Your task to perform on an android device: Search for seafood restaurants on Google Maps Image 0: 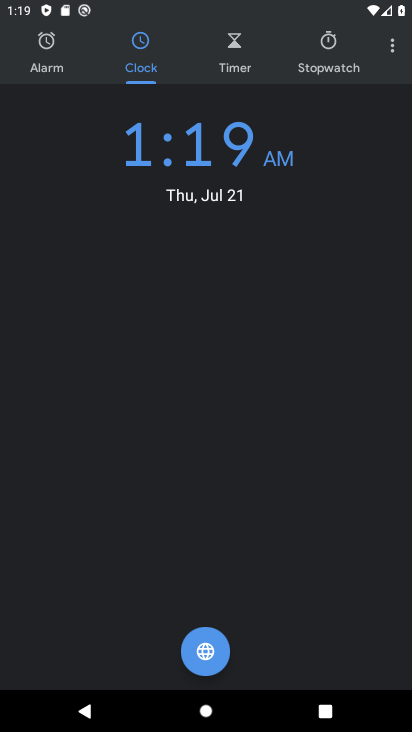
Step 0: press home button
Your task to perform on an android device: Search for seafood restaurants on Google Maps Image 1: 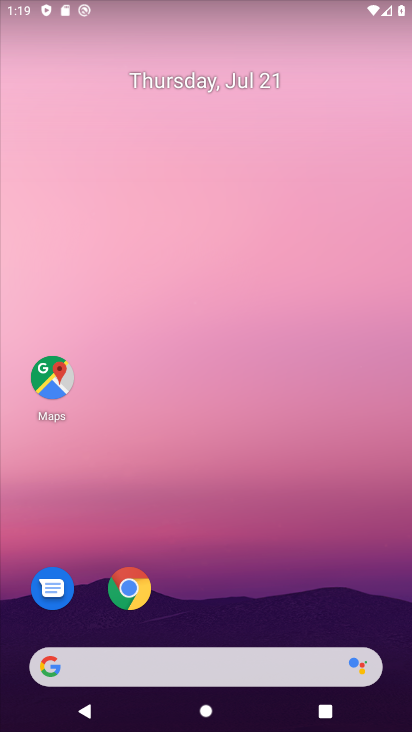
Step 1: drag from (236, 606) to (185, 156)
Your task to perform on an android device: Search for seafood restaurants on Google Maps Image 2: 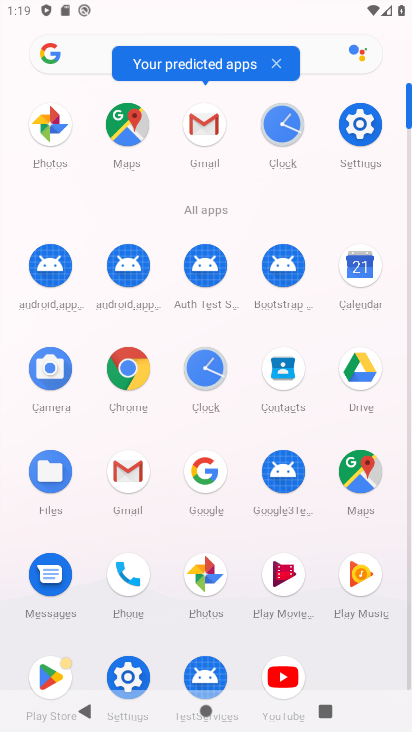
Step 2: click (127, 134)
Your task to perform on an android device: Search for seafood restaurants on Google Maps Image 3: 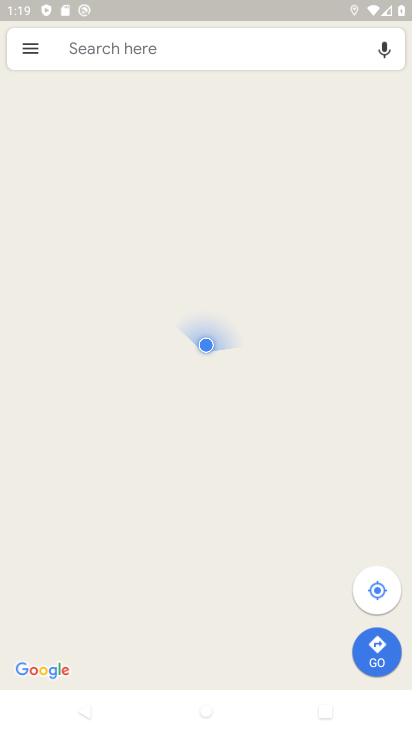
Step 3: click (142, 55)
Your task to perform on an android device: Search for seafood restaurants on Google Maps Image 4: 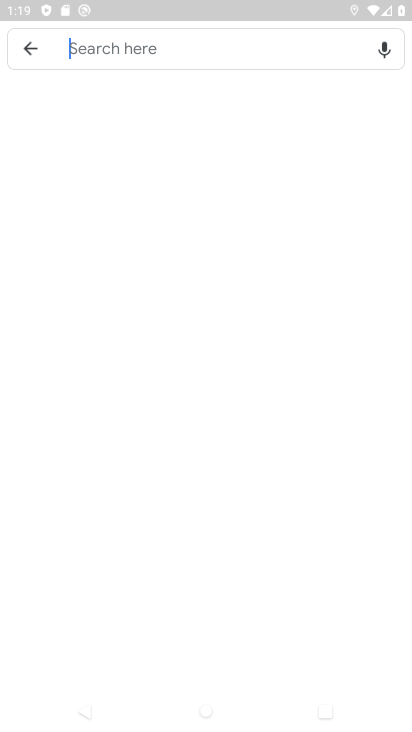
Step 4: click (142, 55)
Your task to perform on an android device: Search for seafood restaurants on Google Maps Image 5: 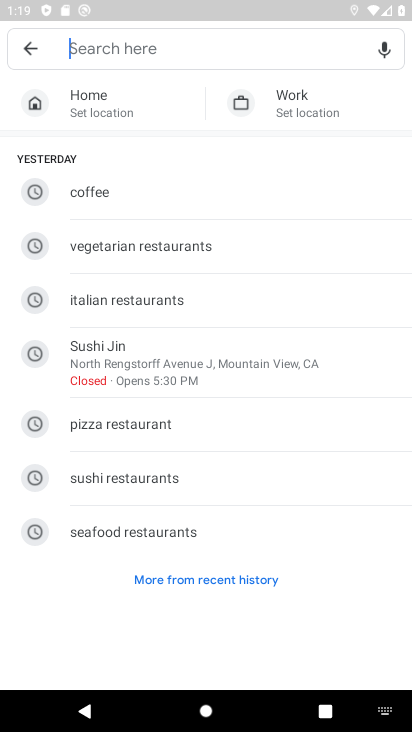
Step 5: click (300, 515)
Your task to perform on an android device: Search for seafood restaurants on Google Maps Image 6: 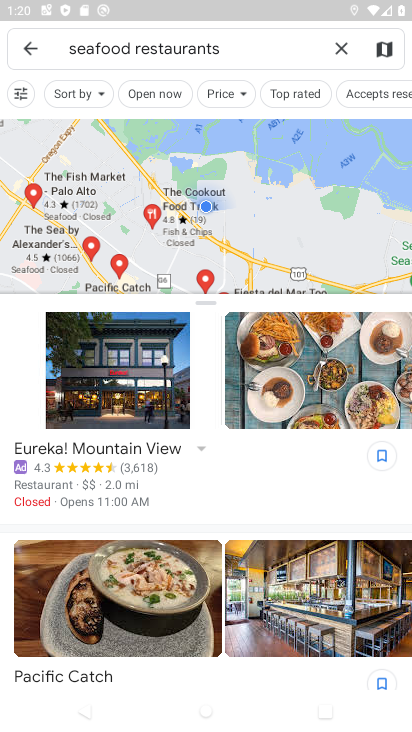
Step 6: task complete